Your task to perform on an android device: Turn on the flashlight Image 0: 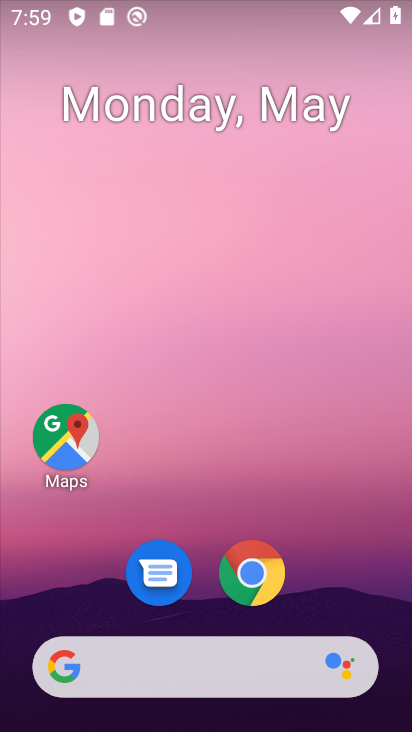
Step 0: drag from (338, 18) to (252, 596)
Your task to perform on an android device: Turn on the flashlight Image 1: 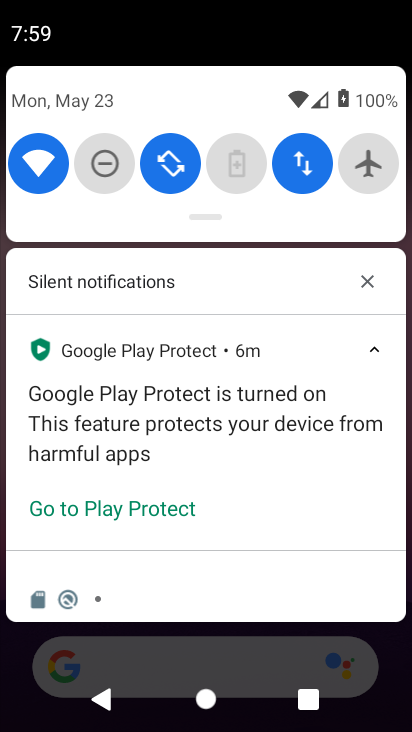
Step 1: task complete